Your task to perform on an android device: turn on the 24-hour format for clock Image 0: 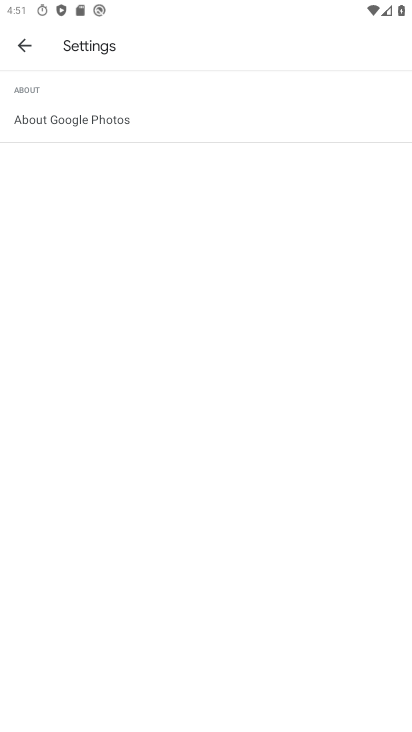
Step 0: press home button
Your task to perform on an android device: turn on the 24-hour format for clock Image 1: 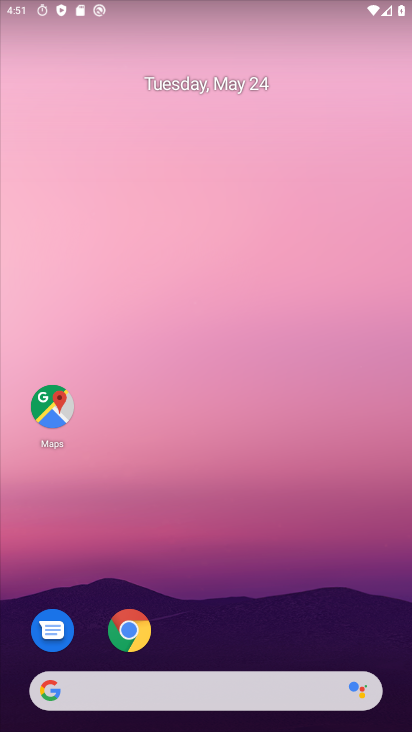
Step 1: click (274, 97)
Your task to perform on an android device: turn on the 24-hour format for clock Image 2: 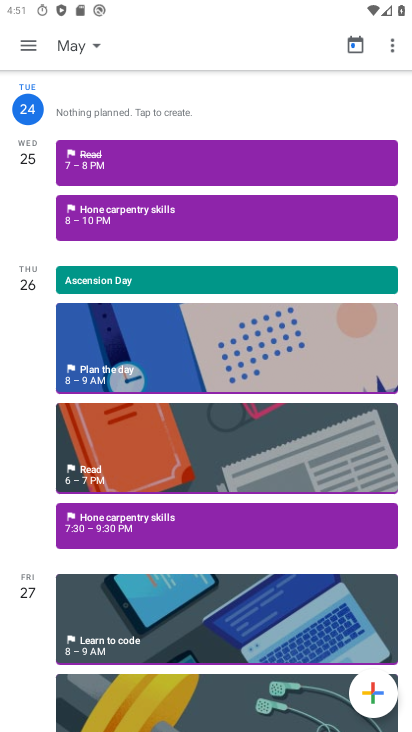
Step 2: press home button
Your task to perform on an android device: turn on the 24-hour format for clock Image 3: 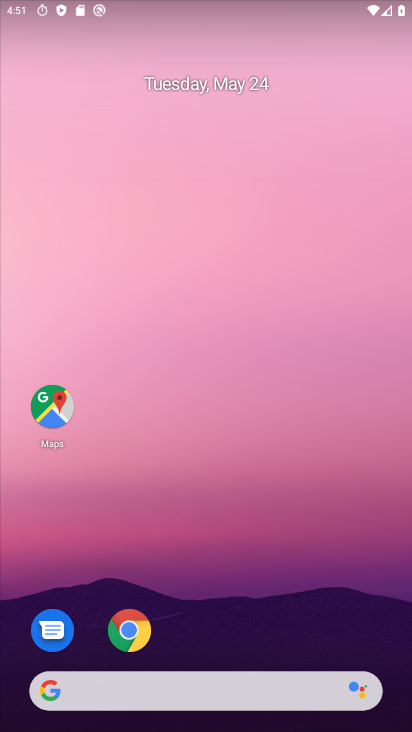
Step 3: drag from (229, 617) to (264, 221)
Your task to perform on an android device: turn on the 24-hour format for clock Image 4: 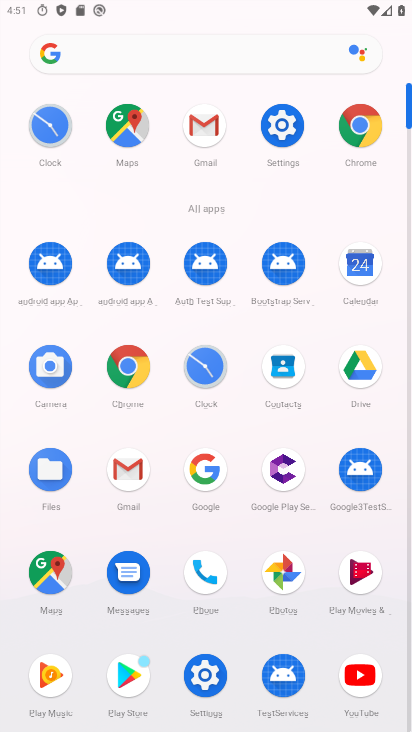
Step 4: click (55, 134)
Your task to perform on an android device: turn on the 24-hour format for clock Image 5: 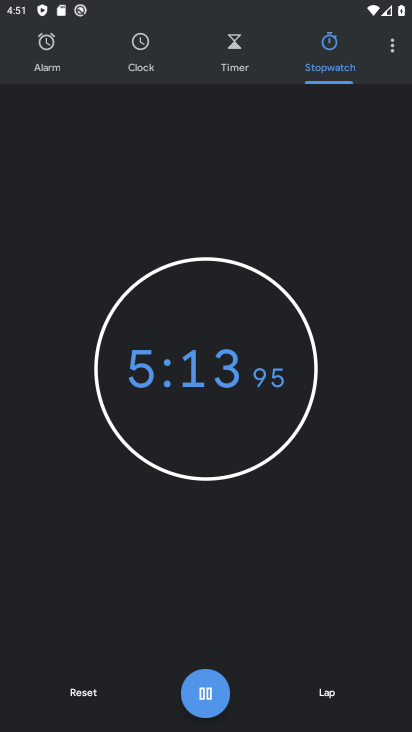
Step 5: click (407, 43)
Your task to perform on an android device: turn on the 24-hour format for clock Image 6: 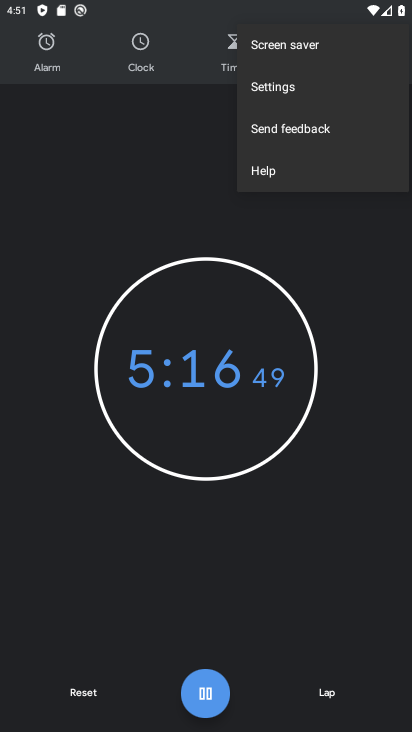
Step 6: click (318, 94)
Your task to perform on an android device: turn on the 24-hour format for clock Image 7: 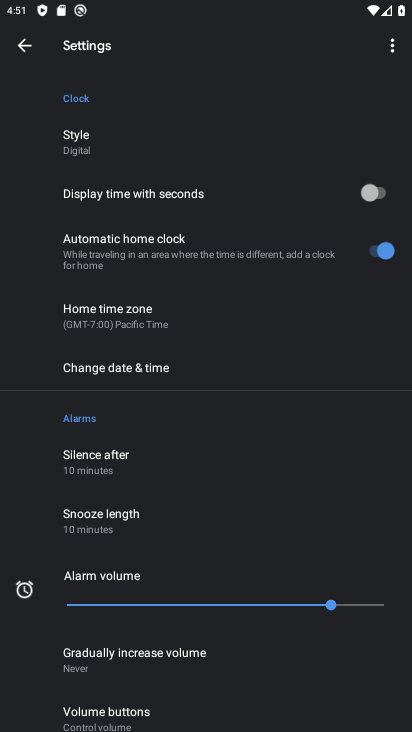
Step 7: click (177, 371)
Your task to perform on an android device: turn on the 24-hour format for clock Image 8: 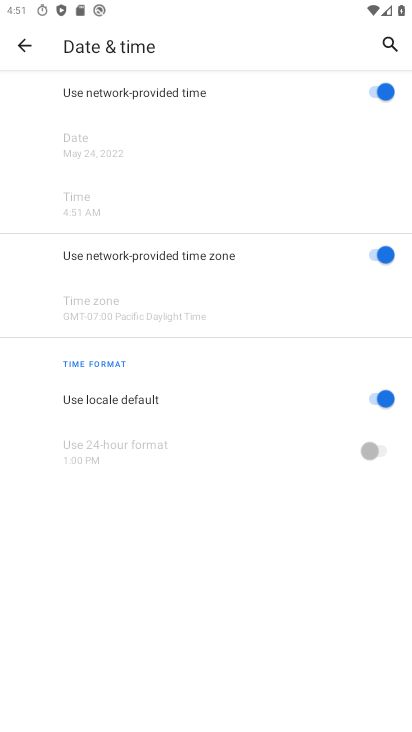
Step 8: click (390, 391)
Your task to perform on an android device: turn on the 24-hour format for clock Image 9: 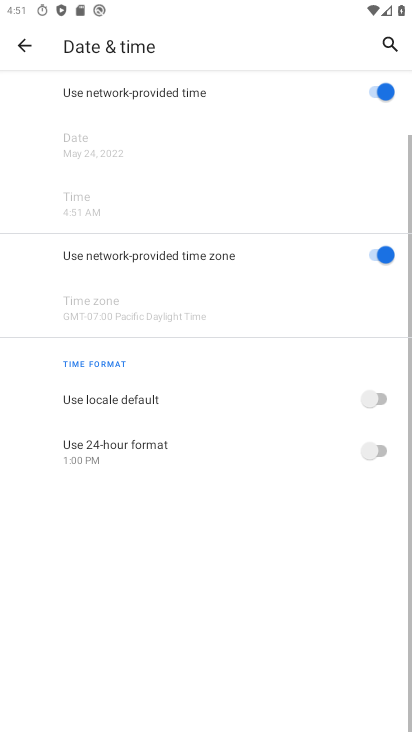
Step 9: click (382, 451)
Your task to perform on an android device: turn on the 24-hour format for clock Image 10: 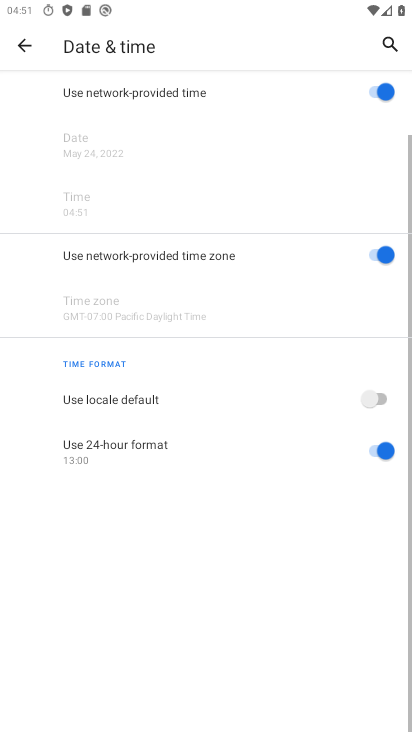
Step 10: task complete